Your task to perform on an android device: clear history in the chrome app Image 0: 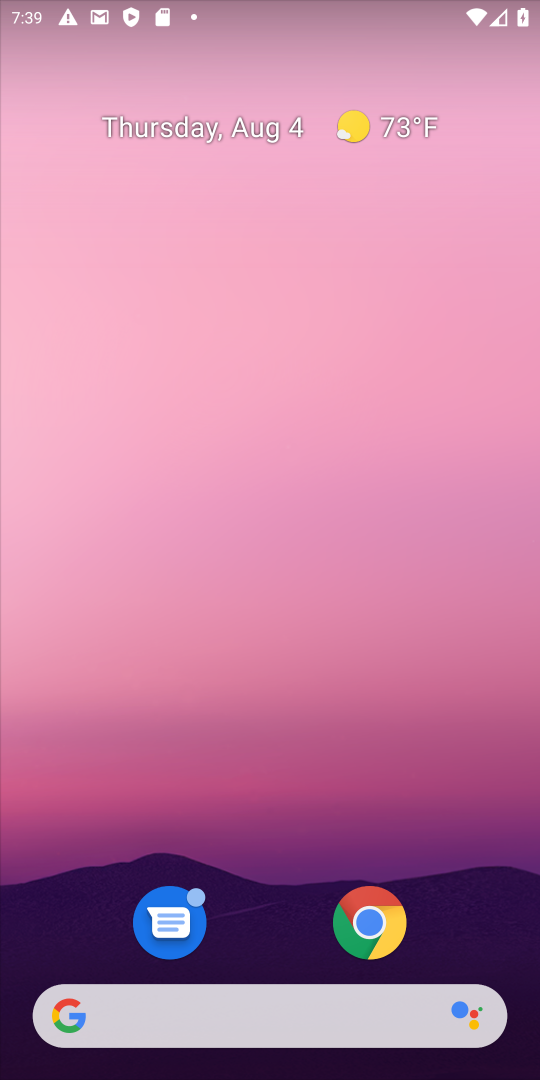
Step 0: click (393, 908)
Your task to perform on an android device: clear history in the chrome app Image 1: 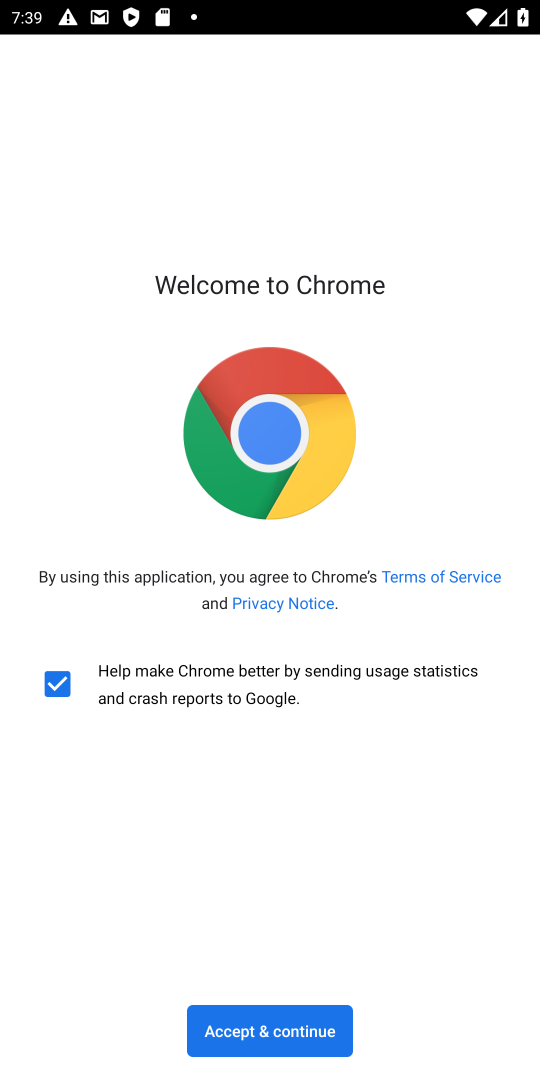
Step 1: click (315, 1036)
Your task to perform on an android device: clear history in the chrome app Image 2: 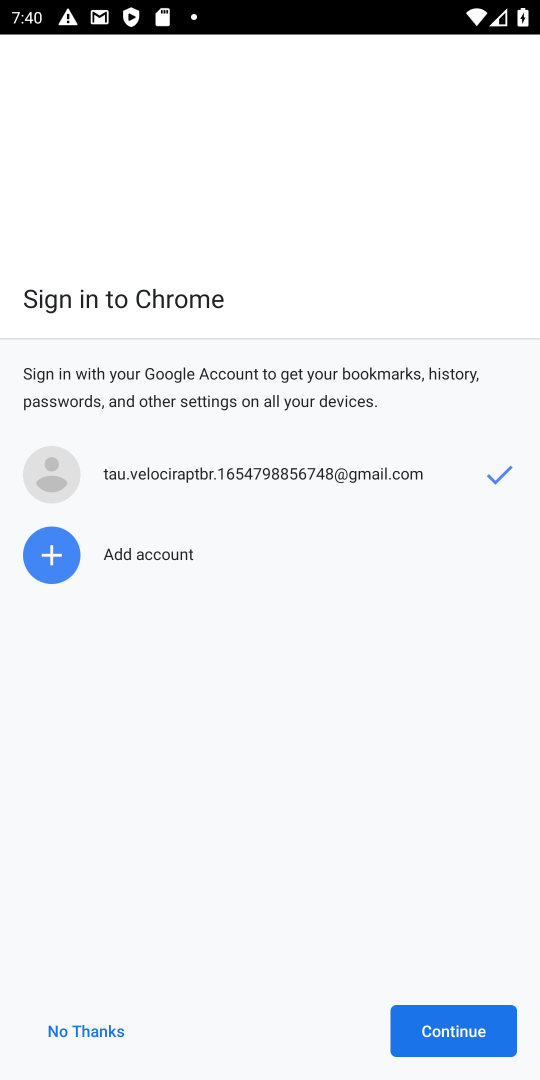
Step 2: click (455, 1018)
Your task to perform on an android device: clear history in the chrome app Image 3: 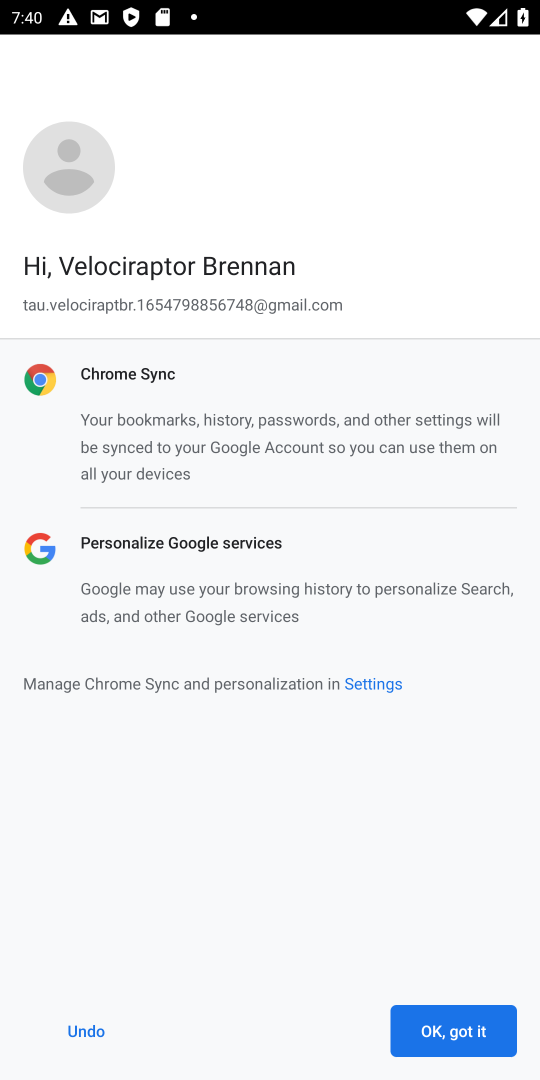
Step 3: click (473, 1034)
Your task to perform on an android device: clear history in the chrome app Image 4: 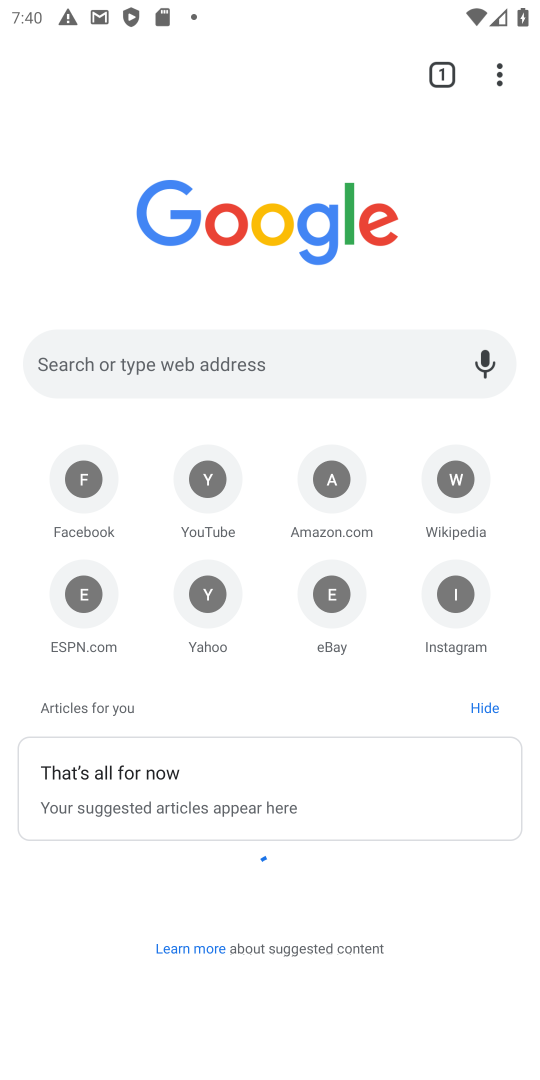
Step 4: click (506, 68)
Your task to perform on an android device: clear history in the chrome app Image 5: 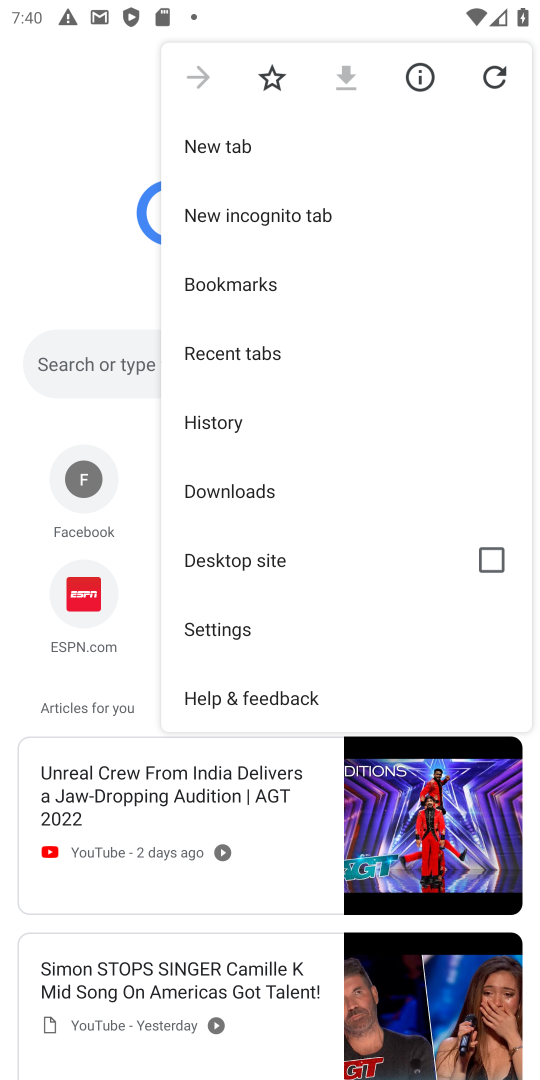
Step 5: click (273, 417)
Your task to perform on an android device: clear history in the chrome app Image 6: 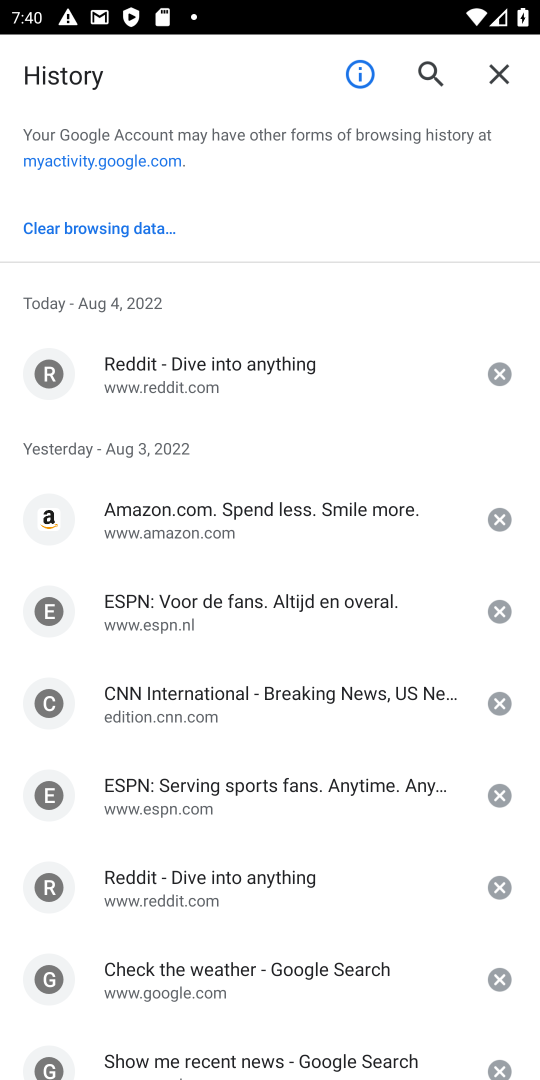
Step 6: click (126, 222)
Your task to perform on an android device: clear history in the chrome app Image 7: 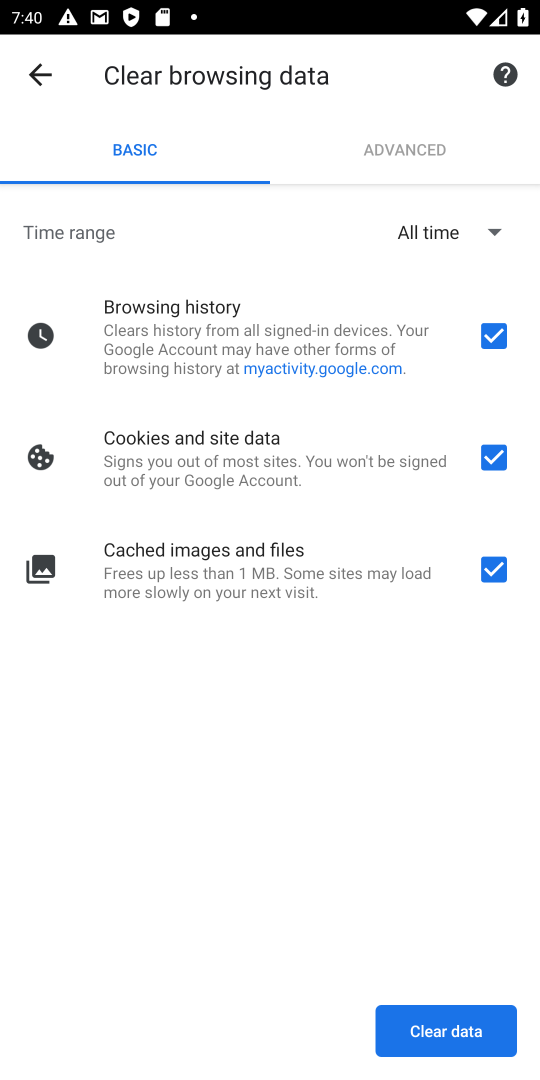
Step 7: click (492, 1036)
Your task to perform on an android device: clear history in the chrome app Image 8: 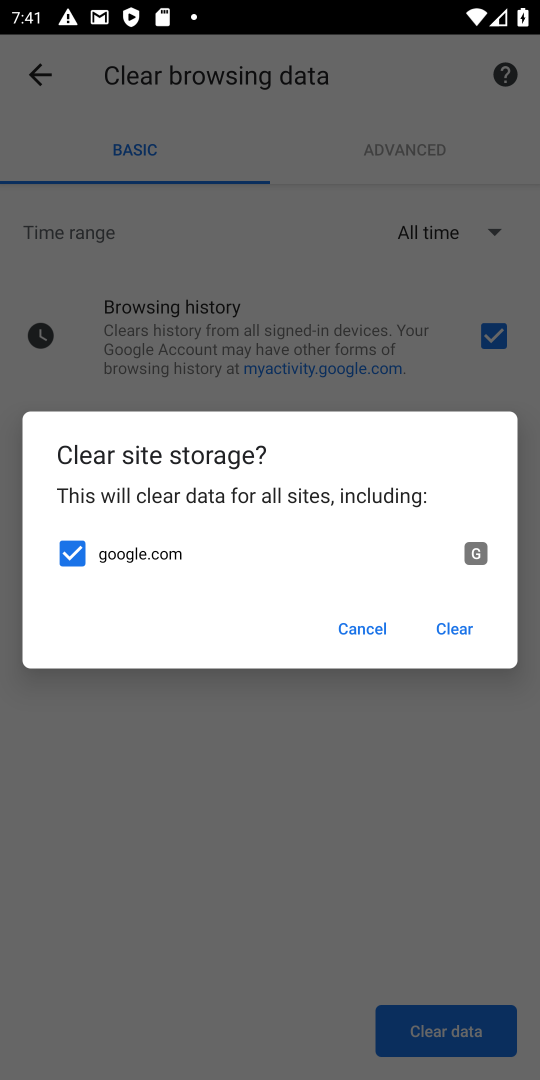
Step 8: click (457, 636)
Your task to perform on an android device: clear history in the chrome app Image 9: 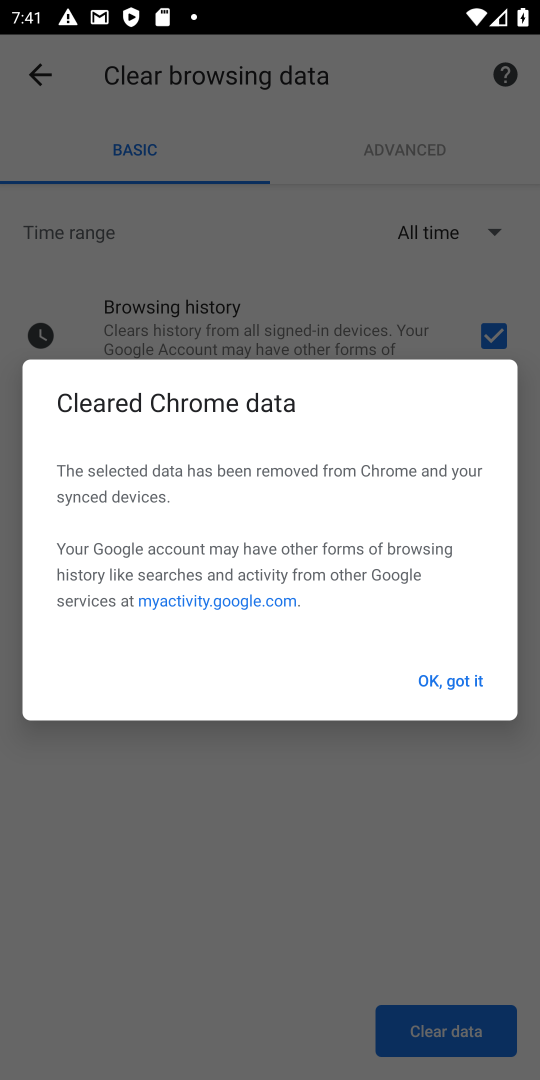
Step 9: click (423, 678)
Your task to perform on an android device: clear history in the chrome app Image 10: 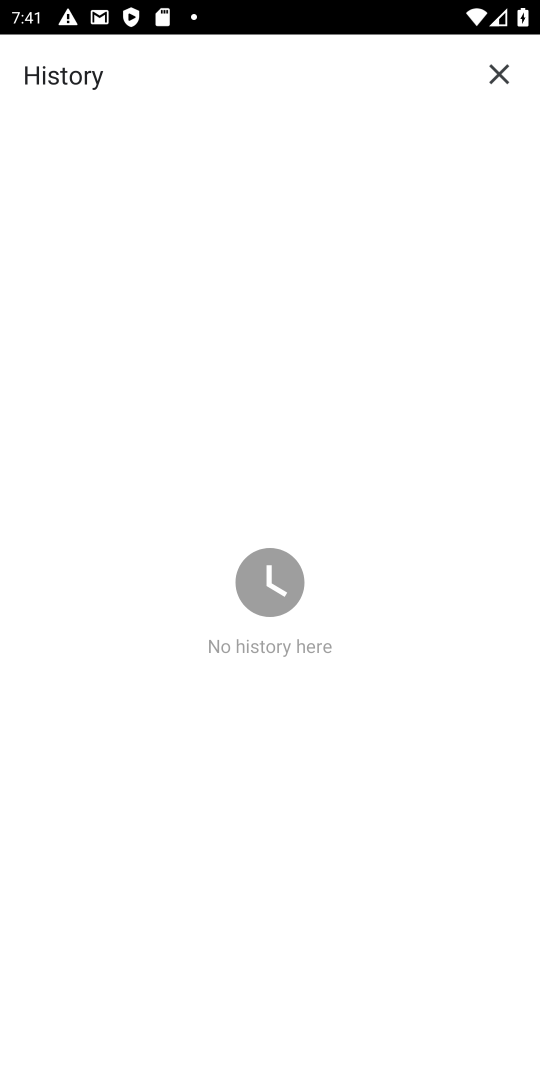
Step 10: task complete